Your task to perform on an android device: Go to ESPN.com Image 0: 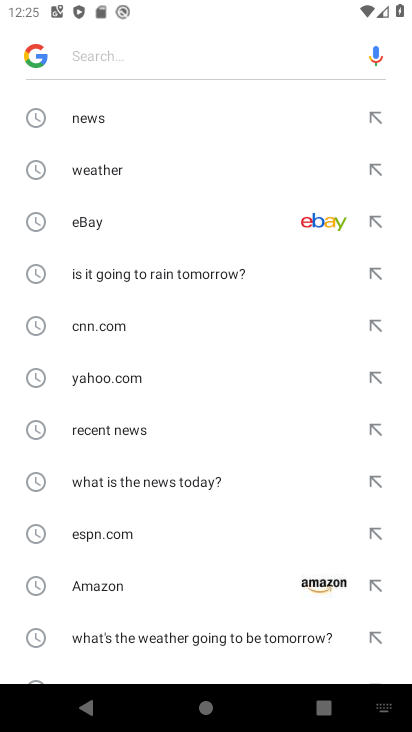
Step 0: press home button
Your task to perform on an android device: Go to ESPN.com Image 1: 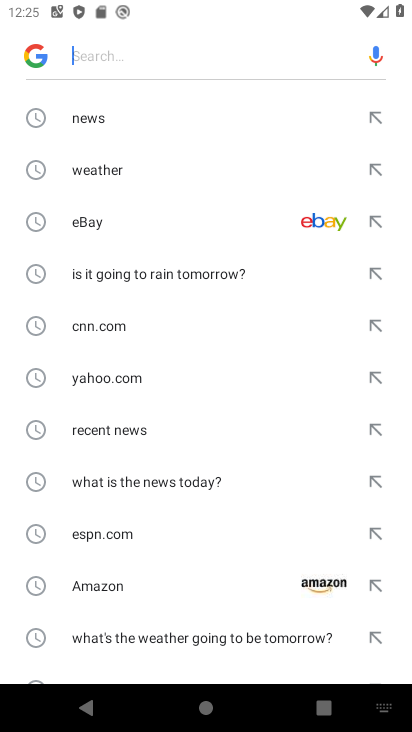
Step 1: press home button
Your task to perform on an android device: Go to ESPN.com Image 2: 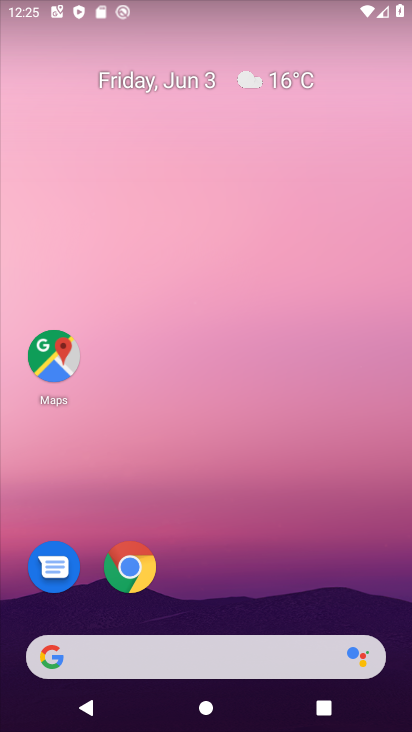
Step 2: click (121, 569)
Your task to perform on an android device: Go to ESPN.com Image 3: 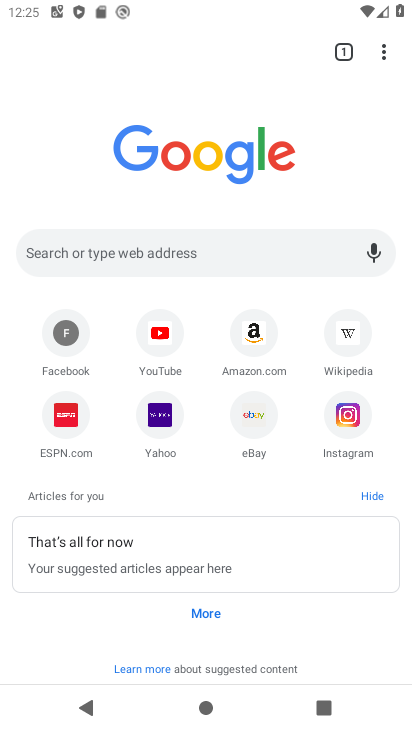
Step 3: click (73, 422)
Your task to perform on an android device: Go to ESPN.com Image 4: 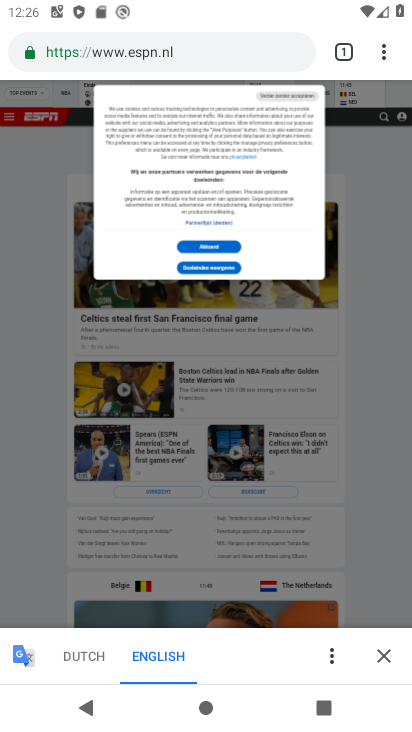
Step 4: task complete